Your task to perform on an android device: Do I have any events today? Image 0: 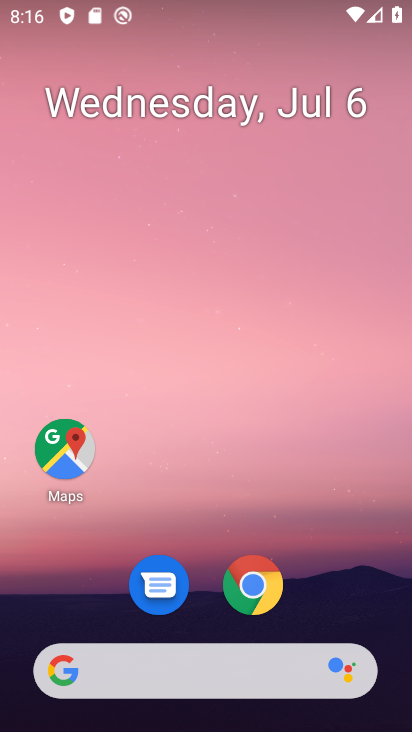
Step 0: drag from (202, 507) to (251, 0)
Your task to perform on an android device: Do I have any events today? Image 1: 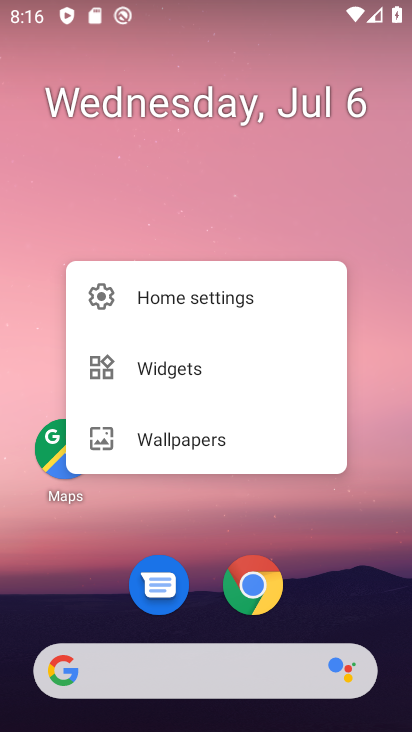
Step 1: click (350, 552)
Your task to perform on an android device: Do I have any events today? Image 2: 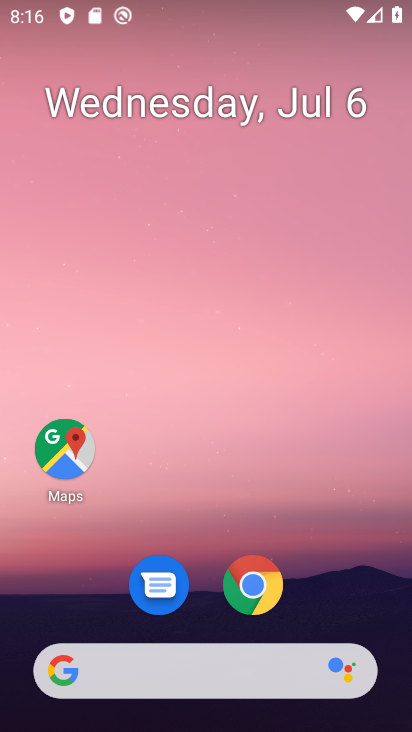
Step 2: drag from (202, 513) to (296, 0)
Your task to perform on an android device: Do I have any events today? Image 3: 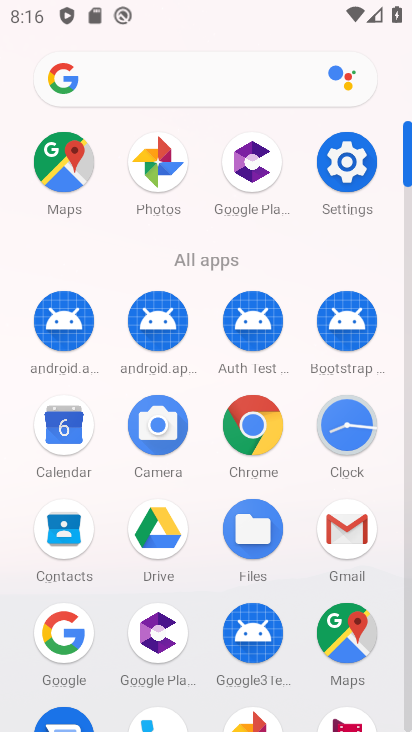
Step 3: click (68, 421)
Your task to perform on an android device: Do I have any events today? Image 4: 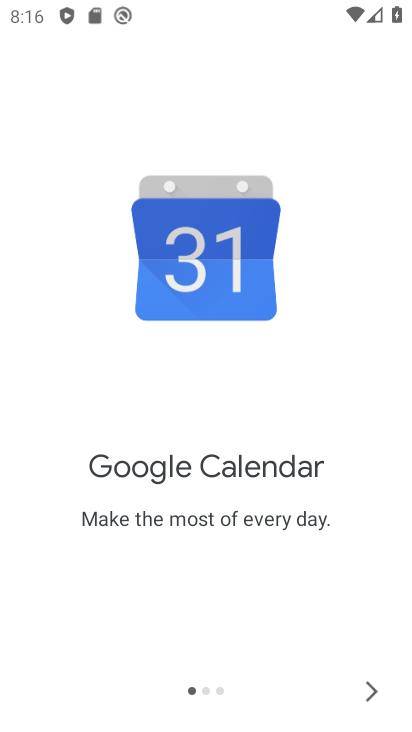
Step 4: click (369, 686)
Your task to perform on an android device: Do I have any events today? Image 5: 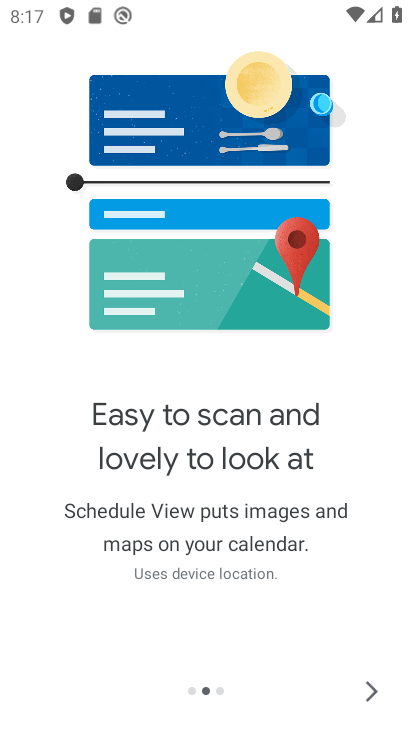
Step 5: click (369, 686)
Your task to perform on an android device: Do I have any events today? Image 6: 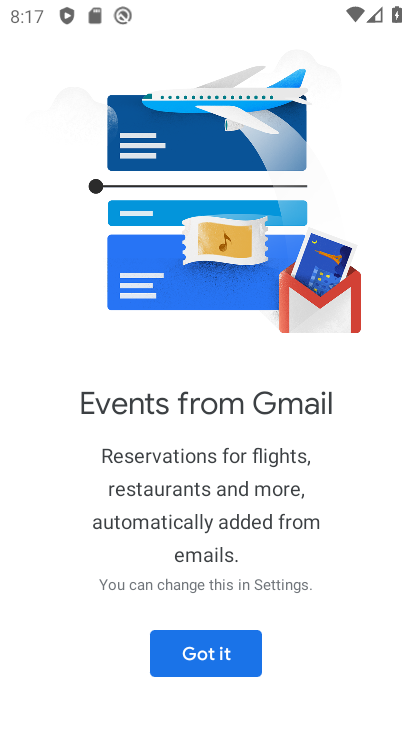
Step 6: click (247, 644)
Your task to perform on an android device: Do I have any events today? Image 7: 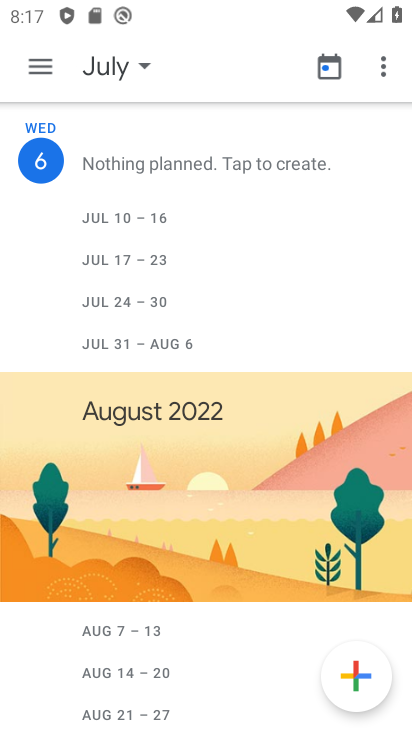
Step 7: click (38, 65)
Your task to perform on an android device: Do I have any events today? Image 8: 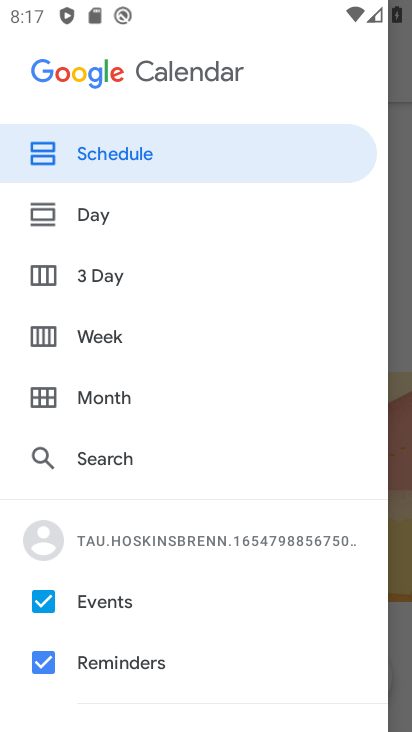
Step 8: click (107, 153)
Your task to perform on an android device: Do I have any events today? Image 9: 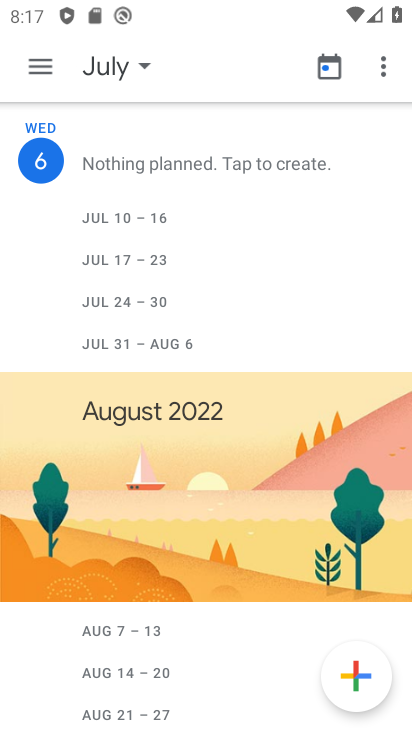
Step 9: task complete